Your task to perform on an android device: Open Google Chrome and open the bookmarks view Image 0: 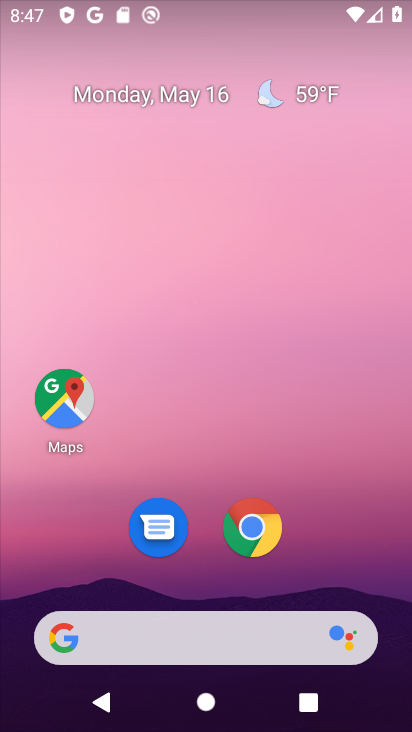
Step 0: click (248, 538)
Your task to perform on an android device: Open Google Chrome and open the bookmarks view Image 1: 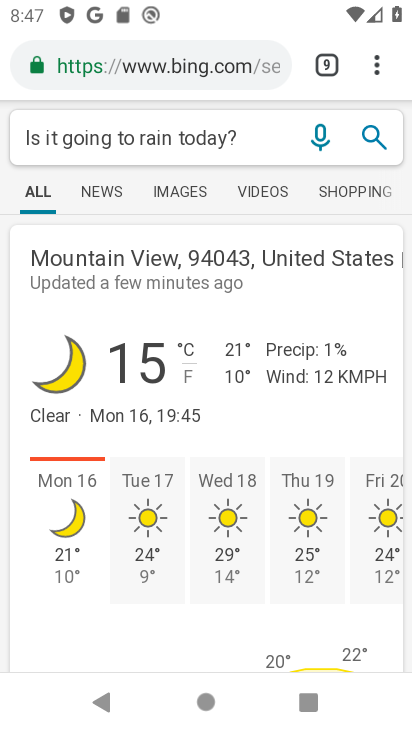
Step 1: click (365, 72)
Your task to perform on an android device: Open Google Chrome and open the bookmarks view Image 2: 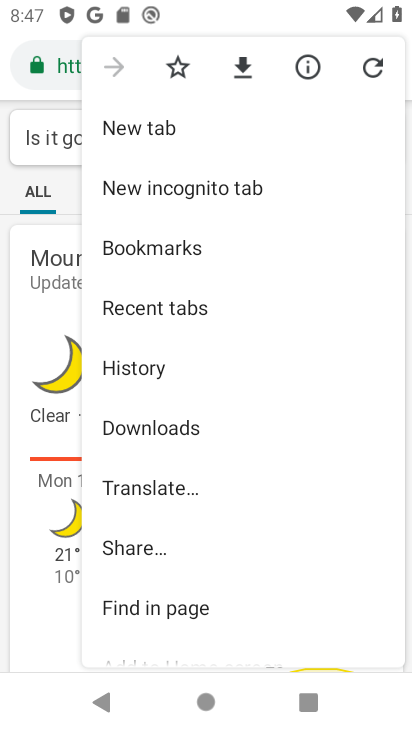
Step 2: click (170, 251)
Your task to perform on an android device: Open Google Chrome and open the bookmarks view Image 3: 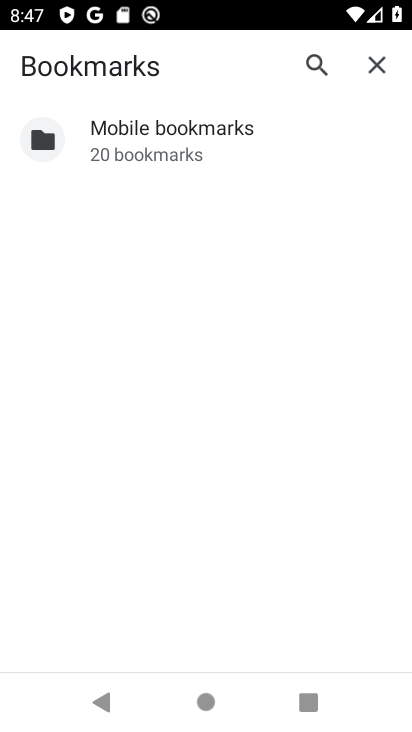
Step 3: click (167, 158)
Your task to perform on an android device: Open Google Chrome and open the bookmarks view Image 4: 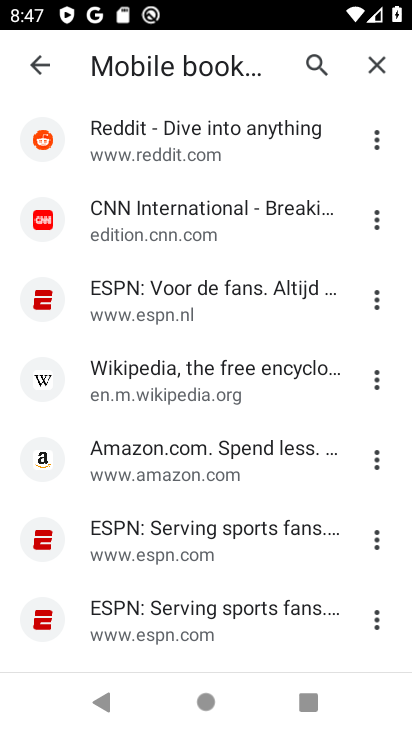
Step 4: task complete